Your task to perform on an android device: Open internet settings Image 0: 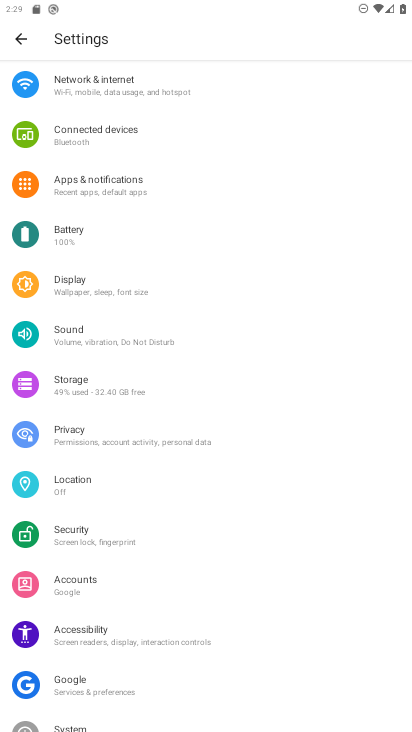
Step 0: click (91, 84)
Your task to perform on an android device: Open internet settings Image 1: 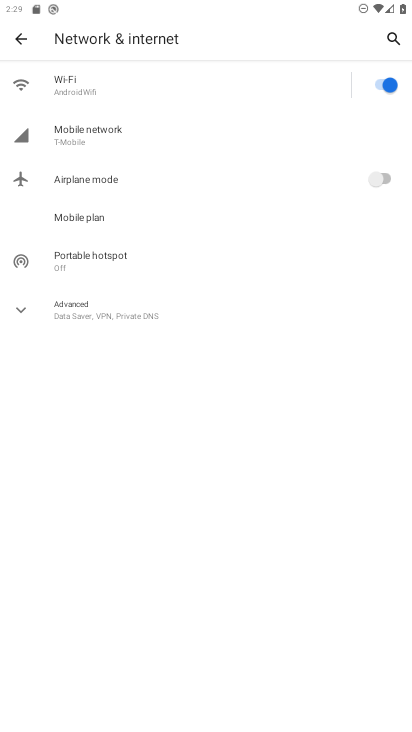
Step 1: click (13, 312)
Your task to perform on an android device: Open internet settings Image 2: 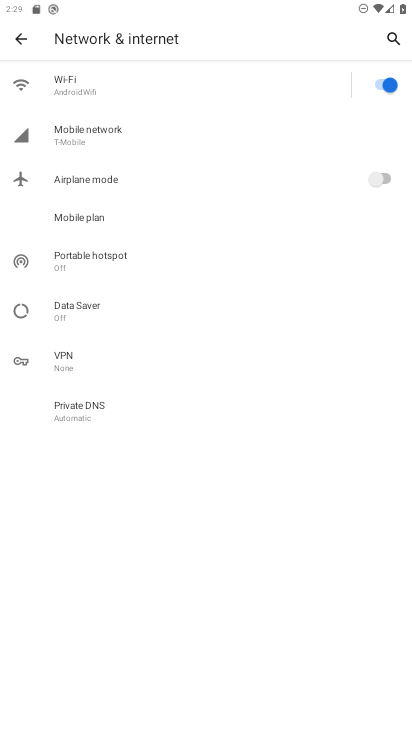
Step 2: task complete